Your task to perform on an android device: Open eBay Image 0: 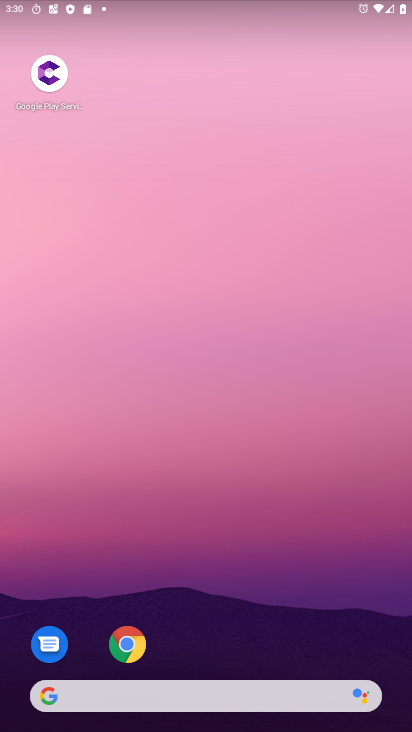
Step 0: click (111, 695)
Your task to perform on an android device: Open eBay Image 1: 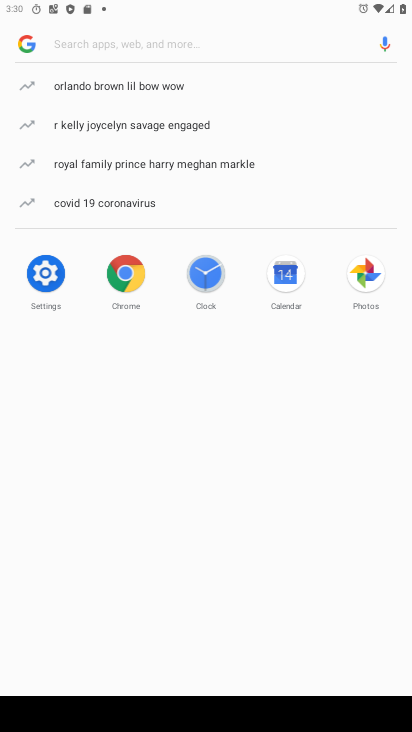
Step 1: type "eBay"
Your task to perform on an android device: Open eBay Image 2: 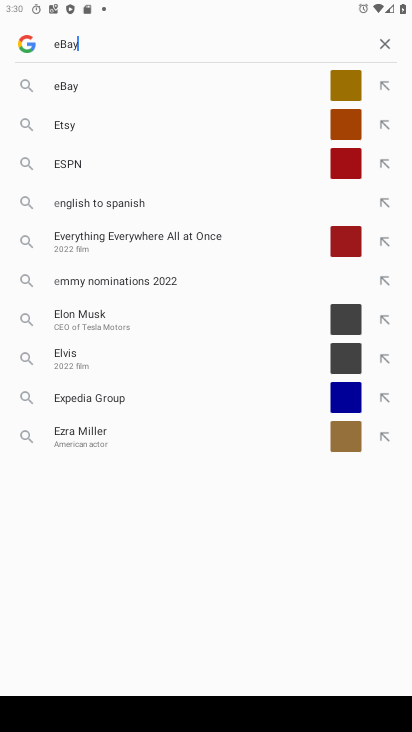
Step 2: type ""
Your task to perform on an android device: Open eBay Image 3: 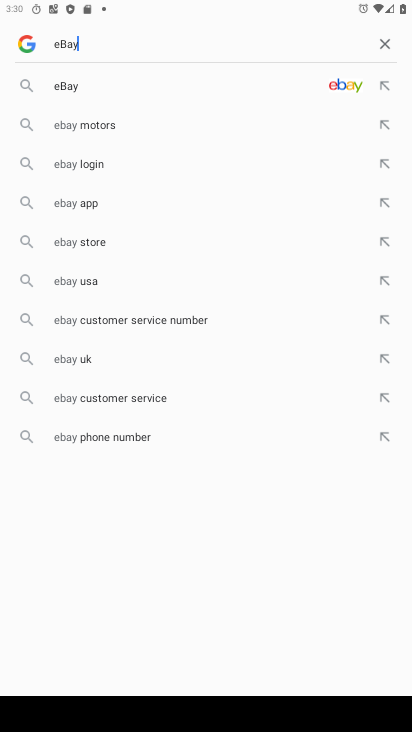
Step 3: click (58, 84)
Your task to perform on an android device: Open eBay Image 4: 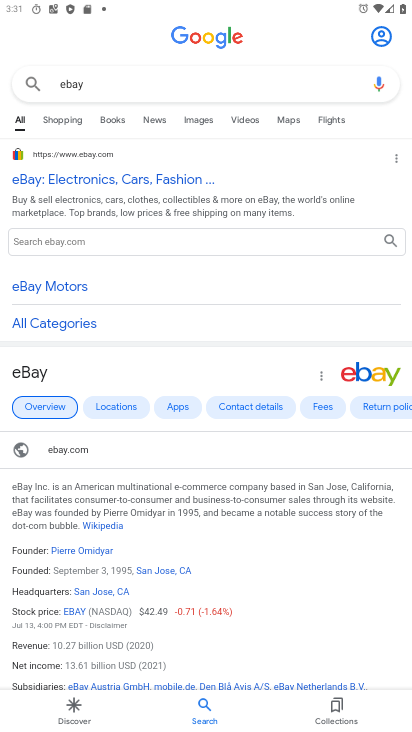
Step 4: task complete